Your task to perform on an android device: Go to Yahoo.com Image 0: 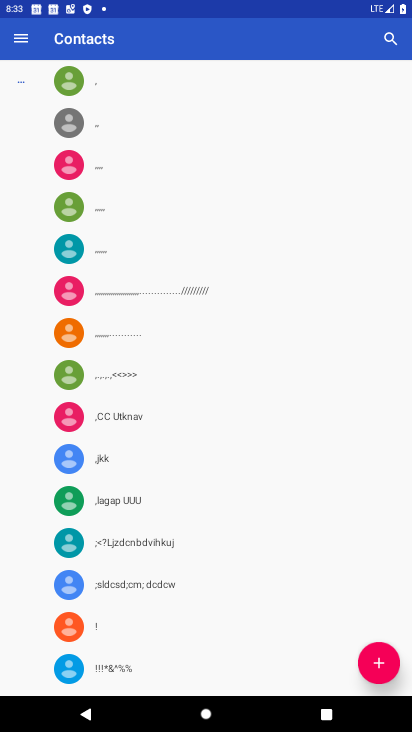
Step 0: press back button
Your task to perform on an android device: Go to Yahoo.com Image 1: 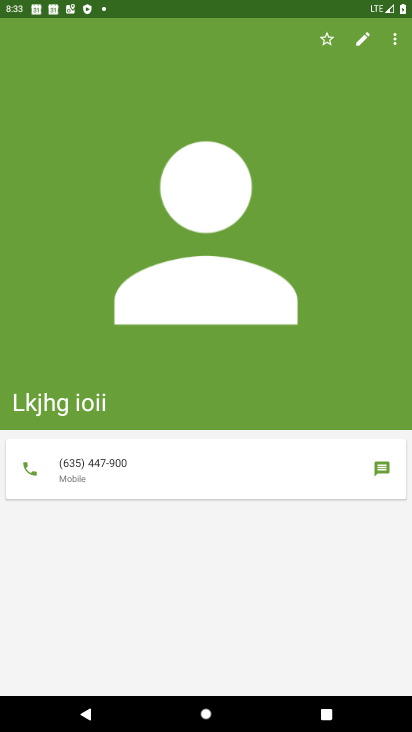
Step 1: press back button
Your task to perform on an android device: Go to Yahoo.com Image 2: 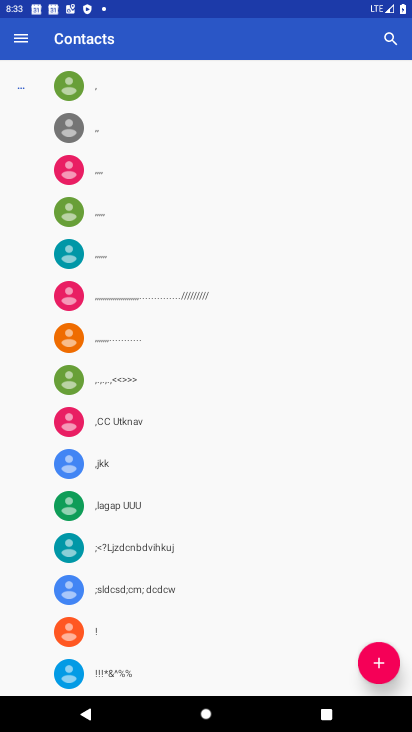
Step 2: press home button
Your task to perform on an android device: Go to Yahoo.com Image 3: 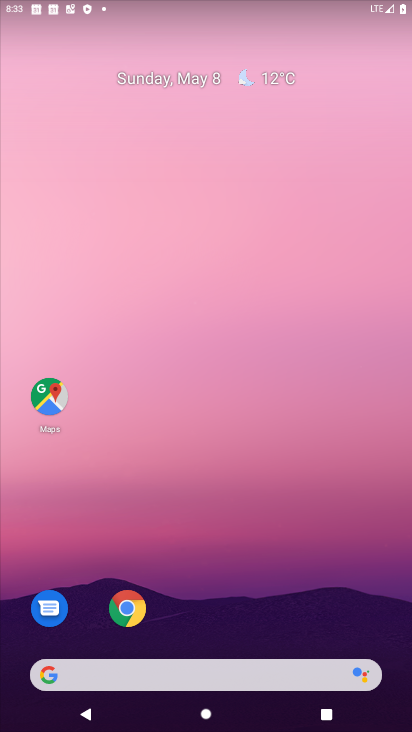
Step 3: drag from (312, 619) to (215, 2)
Your task to perform on an android device: Go to Yahoo.com Image 4: 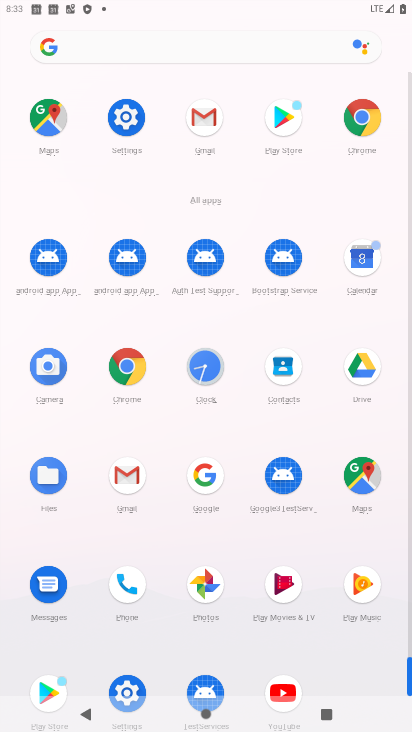
Step 4: click (120, 366)
Your task to perform on an android device: Go to Yahoo.com Image 5: 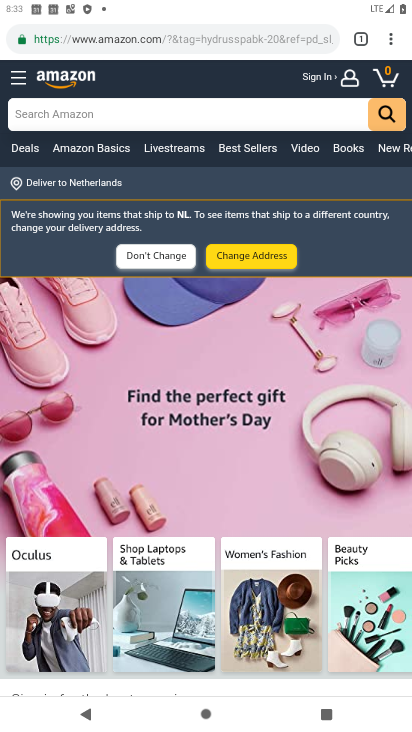
Step 5: click (168, 35)
Your task to perform on an android device: Go to Yahoo.com Image 6: 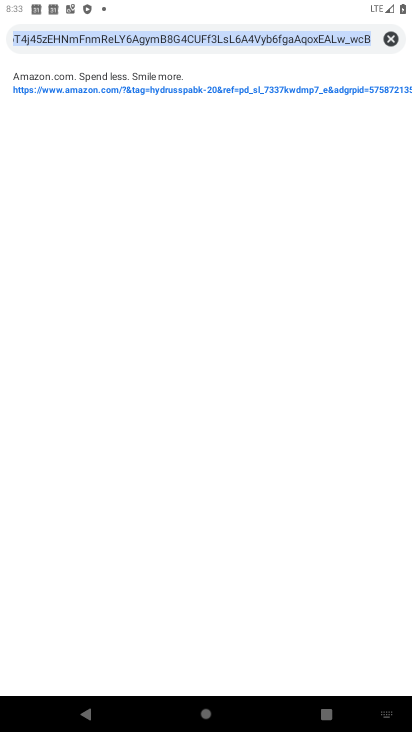
Step 6: click (386, 34)
Your task to perform on an android device: Go to Yahoo.com Image 7: 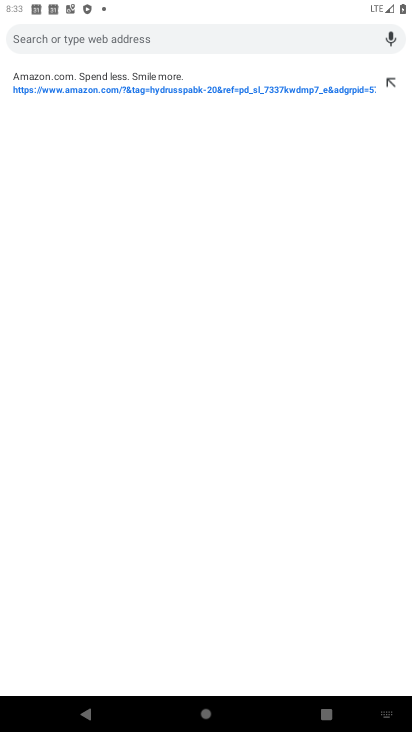
Step 7: type "Yahoo.com"
Your task to perform on an android device: Go to Yahoo.com Image 8: 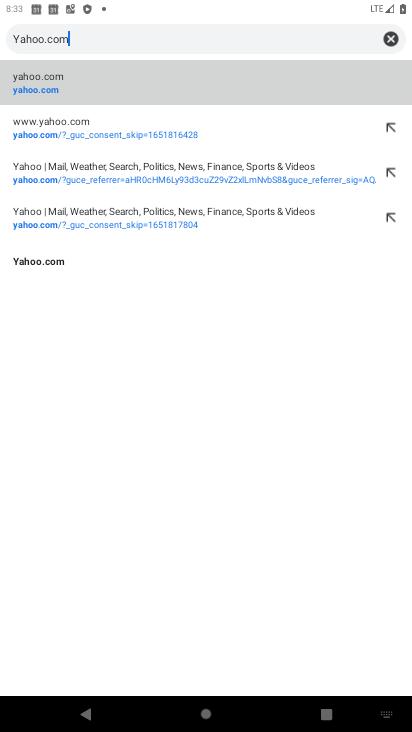
Step 8: click (117, 84)
Your task to perform on an android device: Go to Yahoo.com Image 9: 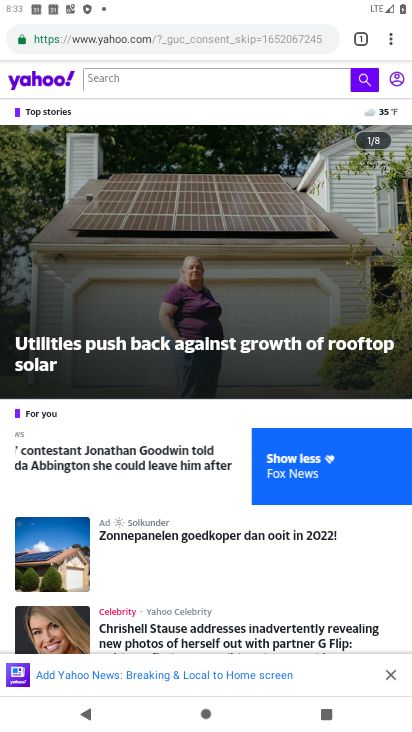
Step 9: task complete